Your task to perform on an android device: Go to eBay Image 0: 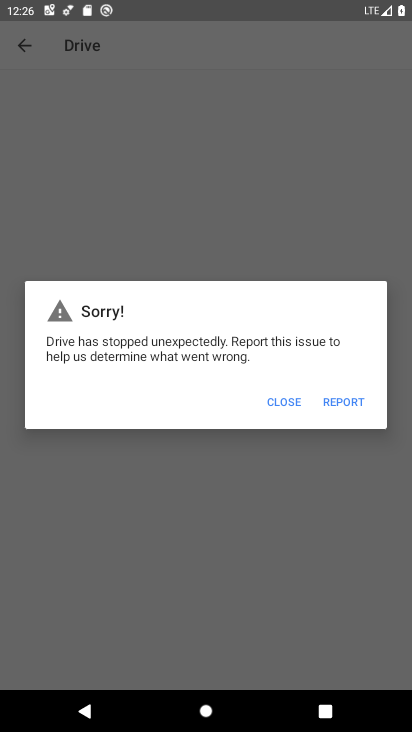
Step 0: press home button
Your task to perform on an android device: Go to eBay Image 1: 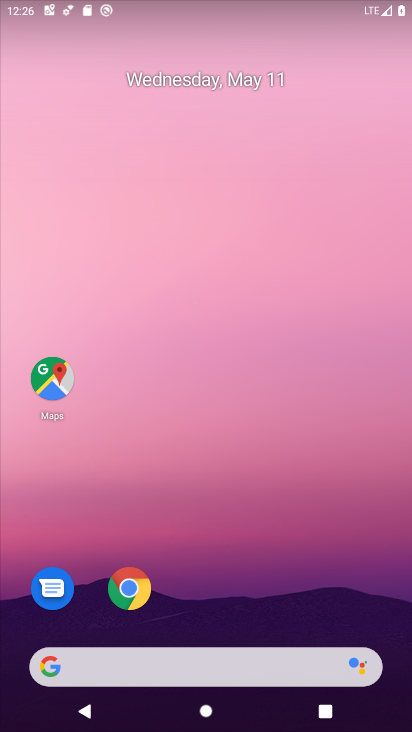
Step 1: click (137, 591)
Your task to perform on an android device: Go to eBay Image 2: 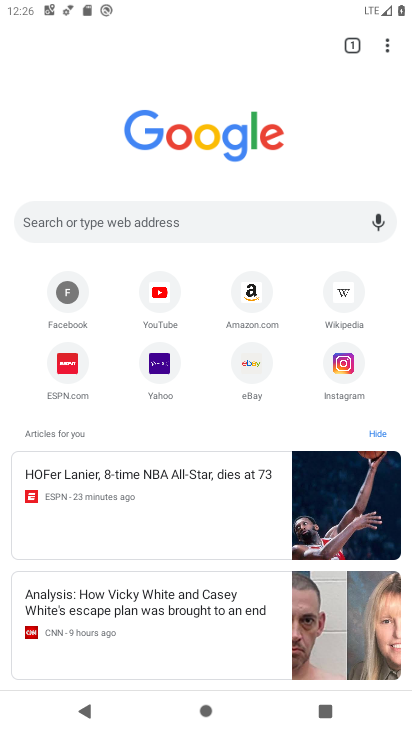
Step 2: click (252, 374)
Your task to perform on an android device: Go to eBay Image 3: 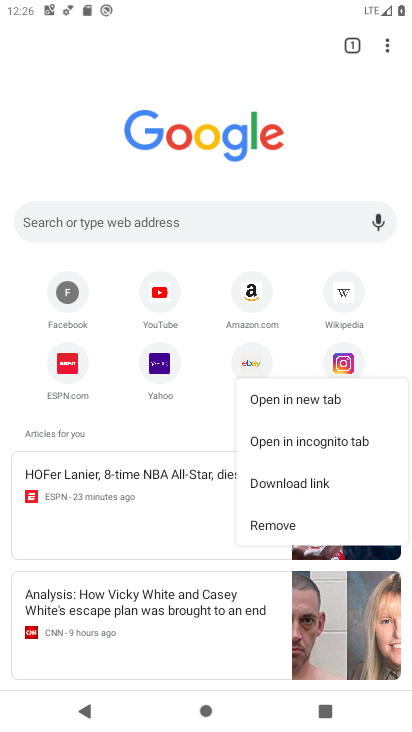
Step 3: click (246, 369)
Your task to perform on an android device: Go to eBay Image 4: 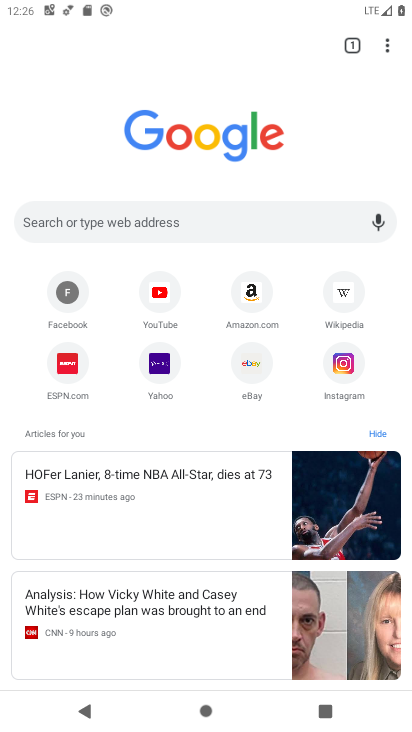
Step 4: click (251, 365)
Your task to perform on an android device: Go to eBay Image 5: 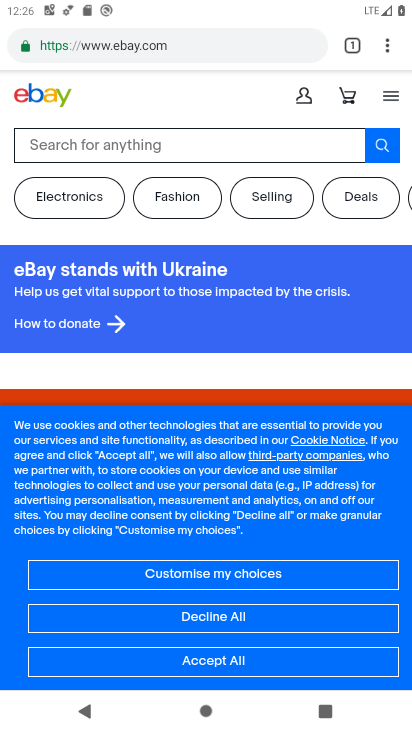
Step 5: task complete